Your task to perform on an android device: change notification settings in the gmail app Image 0: 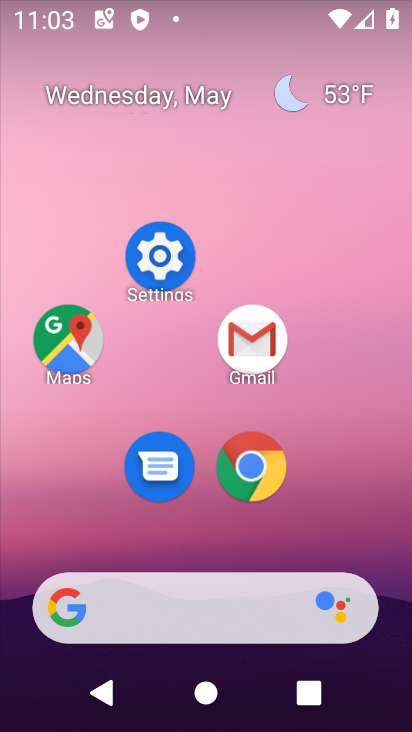
Step 0: drag from (207, 531) to (274, 169)
Your task to perform on an android device: change notification settings in the gmail app Image 1: 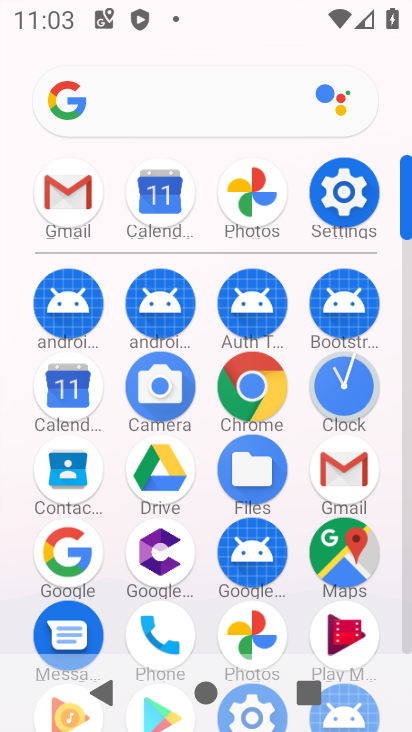
Step 1: click (359, 459)
Your task to perform on an android device: change notification settings in the gmail app Image 2: 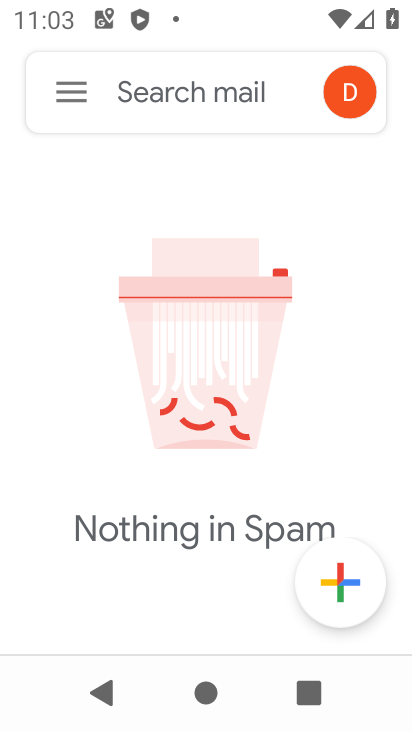
Step 2: click (75, 97)
Your task to perform on an android device: change notification settings in the gmail app Image 3: 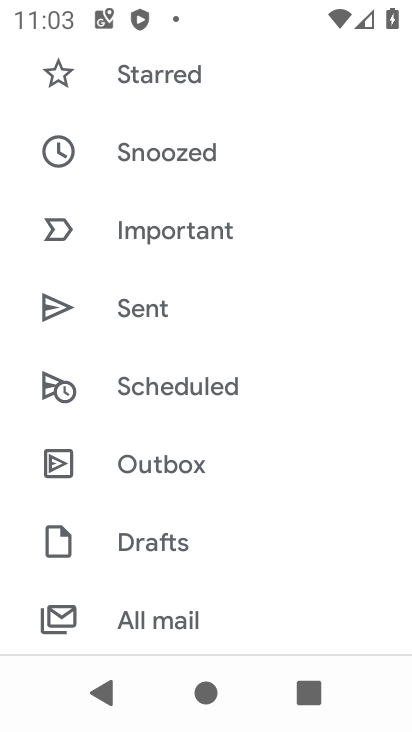
Step 3: drag from (183, 519) to (280, 39)
Your task to perform on an android device: change notification settings in the gmail app Image 4: 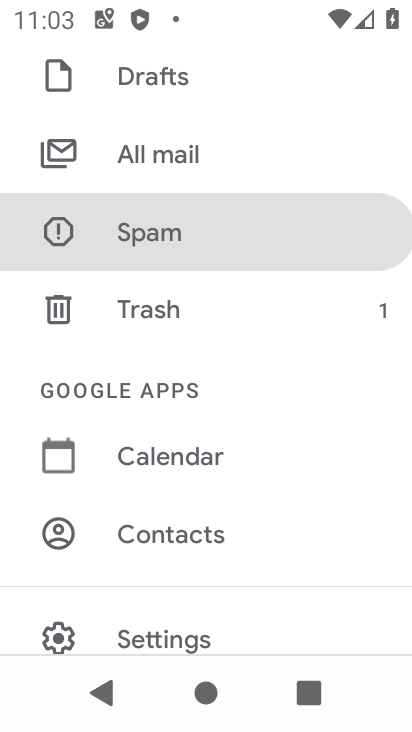
Step 4: drag from (230, 222) to (241, 144)
Your task to perform on an android device: change notification settings in the gmail app Image 5: 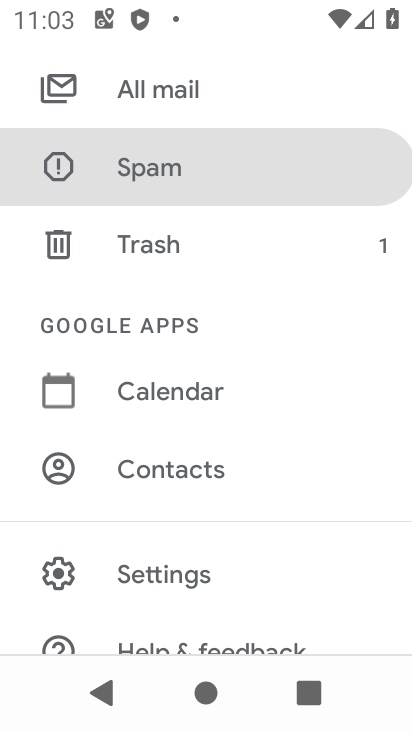
Step 5: click (268, 125)
Your task to perform on an android device: change notification settings in the gmail app Image 6: 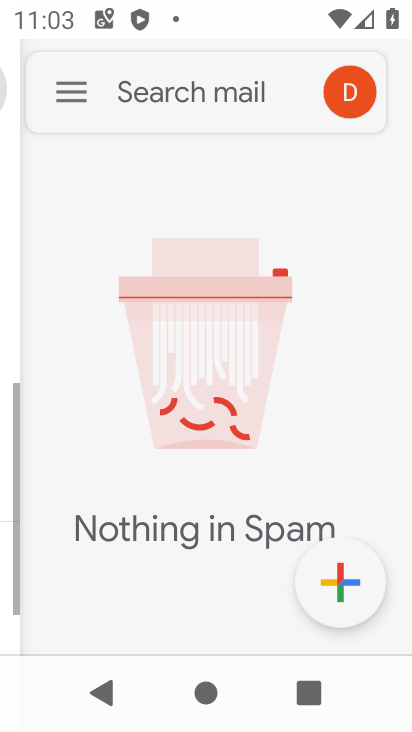
Step 6: click (178, 628)
Your task to perform on an android device: change notification settings in the gmail app Image 7: 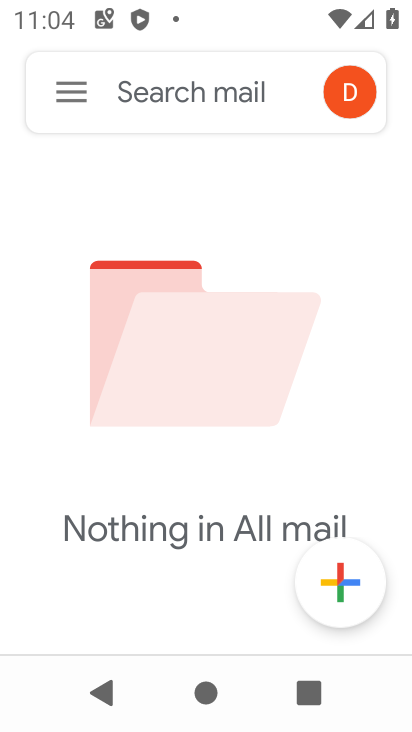
Step 7: click (67, 91)
Your task to perform on an android device: change notification settings in the gmail app Image 8: 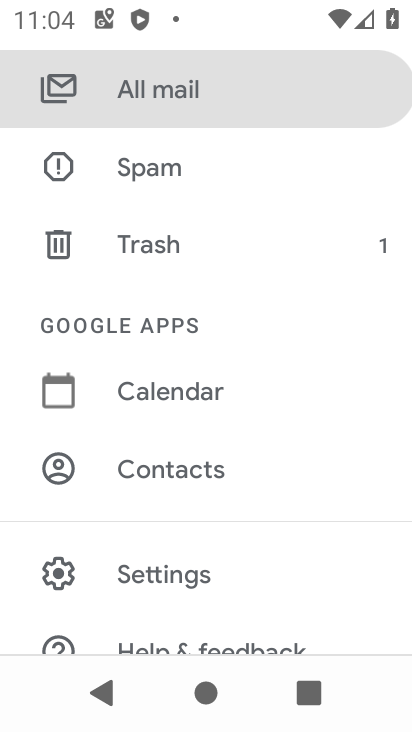
Step 8: click (179, 587)
Your task to perform on an android device: change notification settings in the gmail app Image 9: 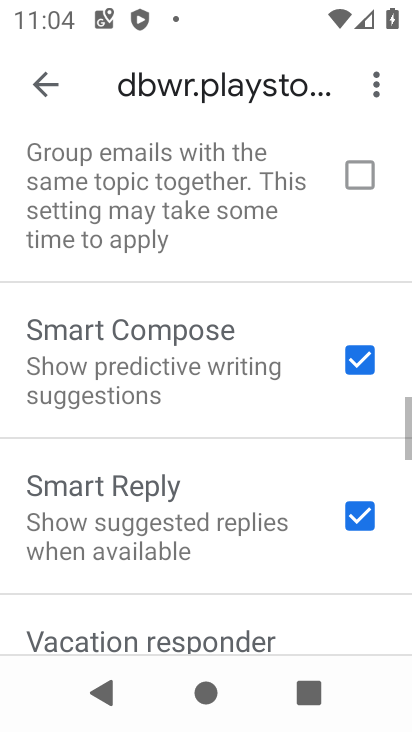
Step 9: drag from (185, 553) to (232, 161)
Your task to perform on an android device: change notification settings in the gmail app Image 10: 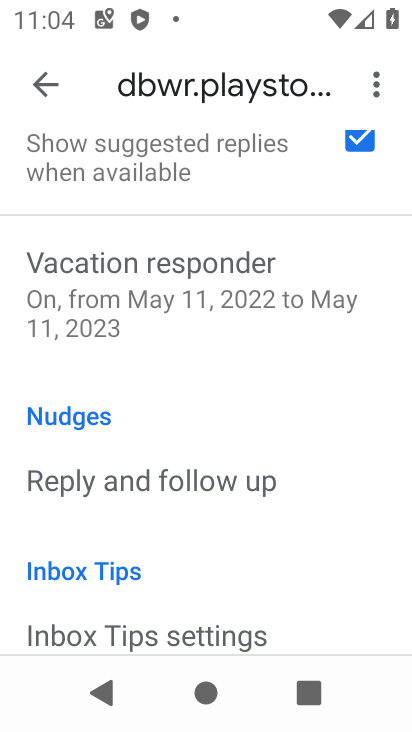
Step 10: drag from (182, 290) to (157, 716)
Your task to perform on an android device: change notification settings in the gmail app Image 11: 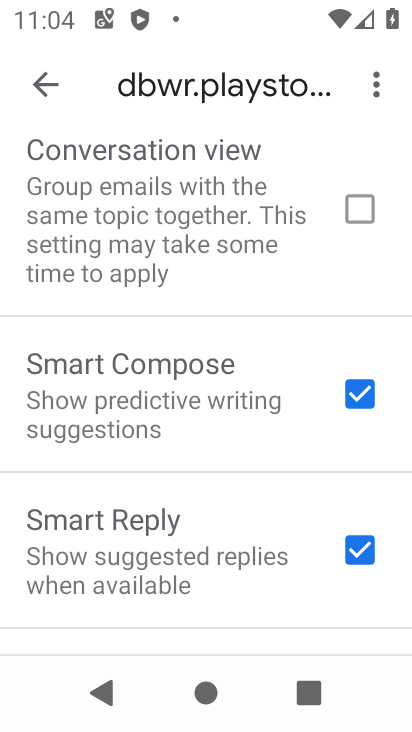
Step 11: drag from (233, 508) to (298, 167)
Your task to perform on an android device: change notification settings in the gmail app Image 12: 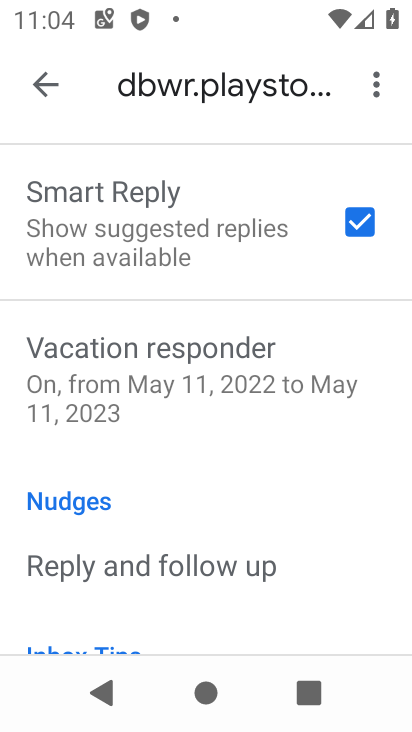
Step 12: drag from (288, 196) to (196, 723)
Your task to perform on an android device: change notification settings in the gmail app Image 13: 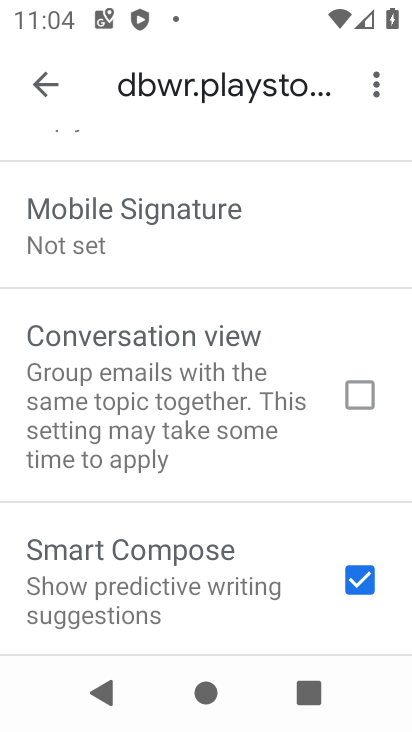
Step 13: drag from (183, 254) to (196, 691)
Your task to perform on an android device: change notification settings in the gmail app Image 14: 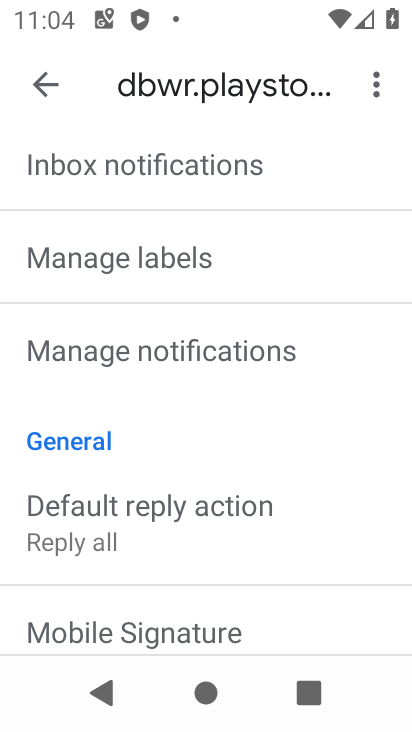
Step 14: click (154, 352)
Your task to perform on an android device: change notification settings in the gmail app Image 15: 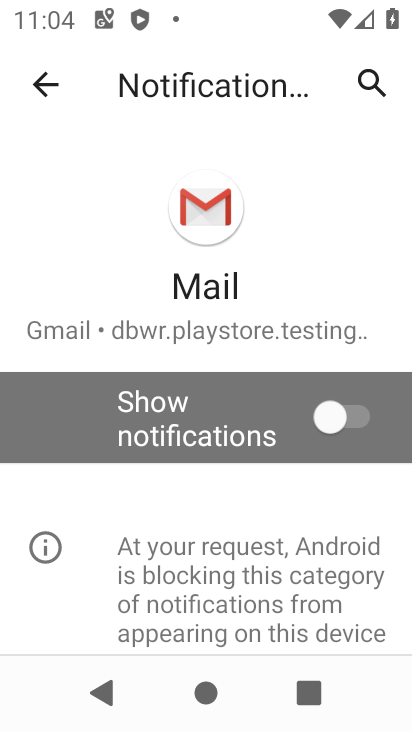
Step 15: click (319, 419)
Your task to perform on an android device: change notification settings in the gmail app Image 16: 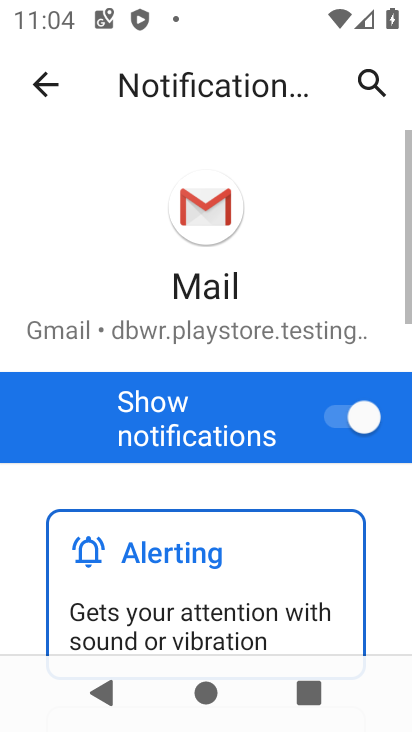
Step 16: task complete